Your task to perform on an android device: Open network settings Image 0: 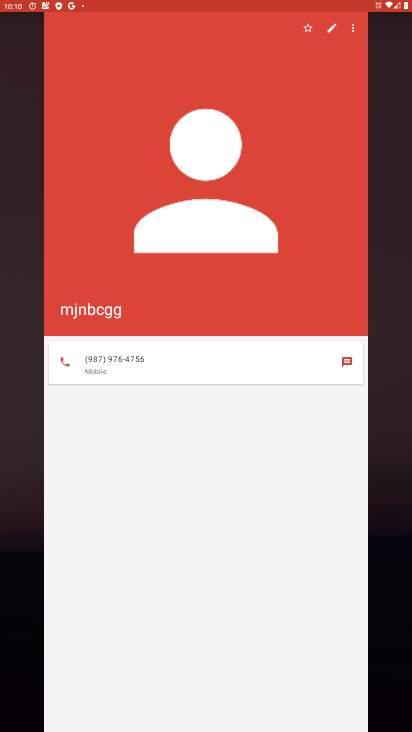
Step 0: click (221, 311)
Your task to perform on an android device: Open network settings Image 1: 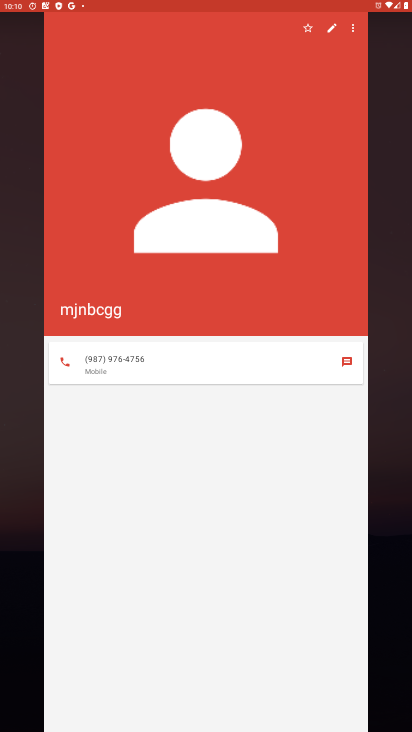
Step 1: press home button
Your task to perform on an android device: Open network settings Image 2: 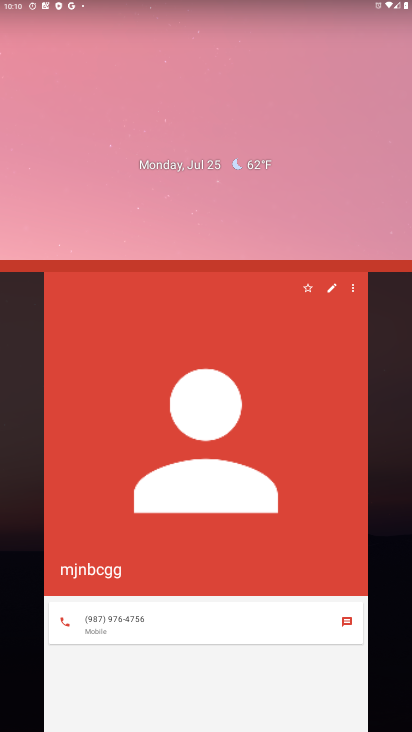
Step 2: press home button
Your task to perform on an android device: Open network settings Image 3: 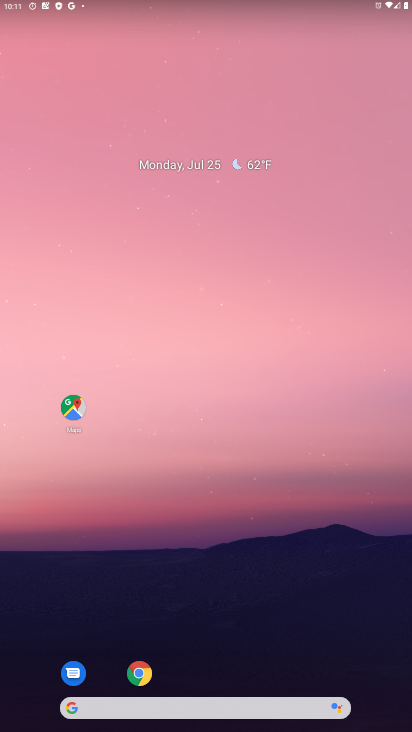
Step 3: drag from (196, 543) to (221, 176)
Your task to perform on an android device: Open network settings Image 4: 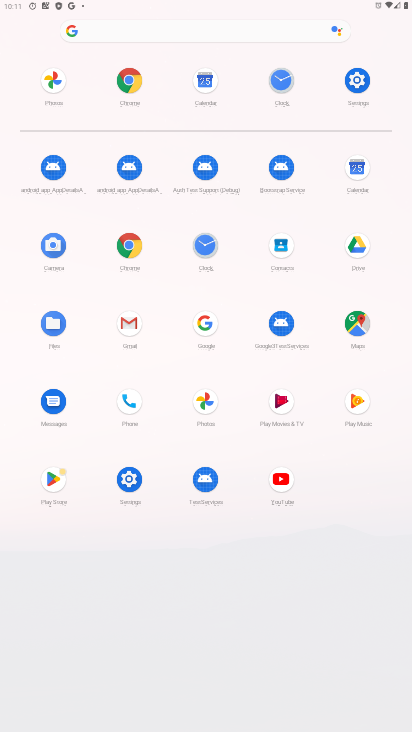
Step 4: click (123, 498)
Your task to perform on an android device: Open network settings Image 5: 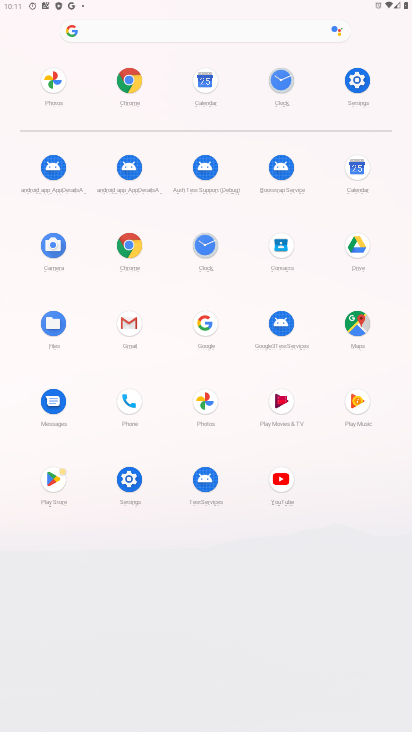
Step 5: click (123, 498)
Your task to perform on an android device: Open network settings Image 6: 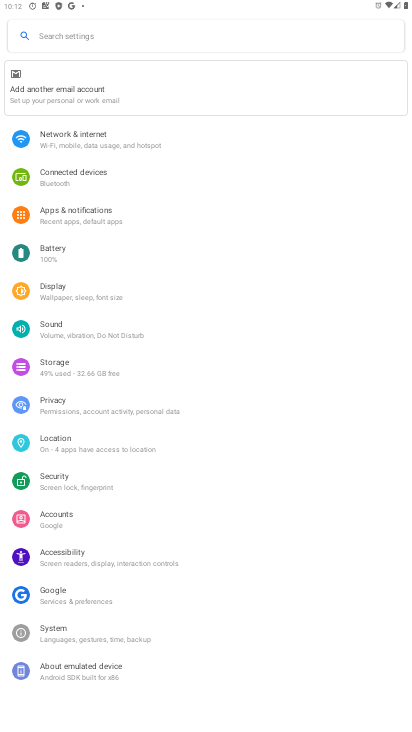
Step 6: click (99, 138)
Your task to perform on an android device: Open network settings Image 7: 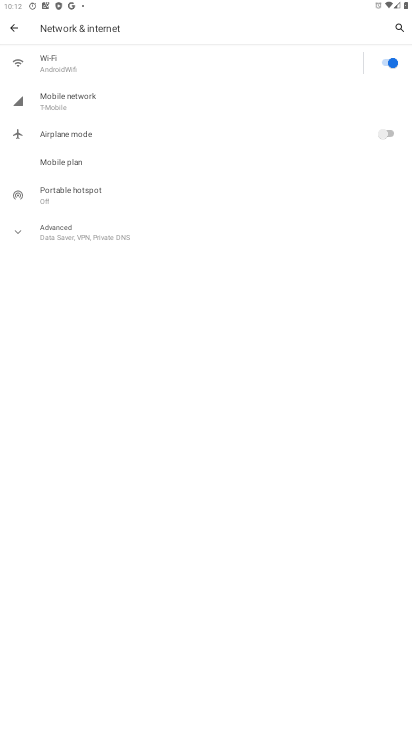
Step 7: task complete